Your task to perform on an android device: turn on the 12-hour format for clock Image 0: 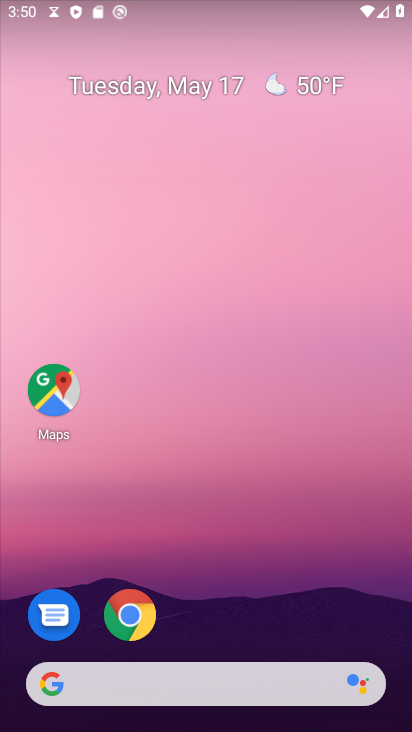
Step 0: drag from (233, 625) to (278, 177)
Your task to perform on an android device: turn on the 12-hour format for clock Image 1: 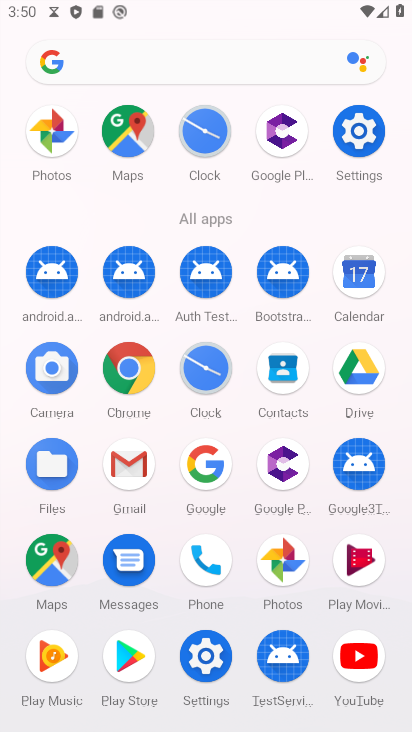
Step 1: click (207, 363)
Your task to perform on an android device: turn on the 12-hour format for clock Image 2: 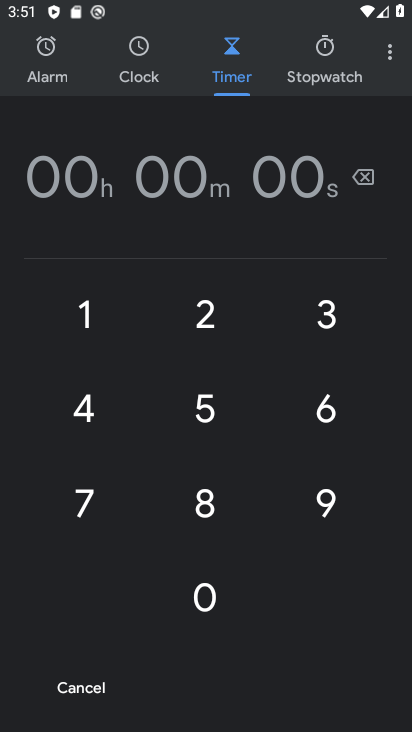
Step 2: click (393, 53)
Your task to perform on an android device: turn on the 12-hour format for clock Image 3: 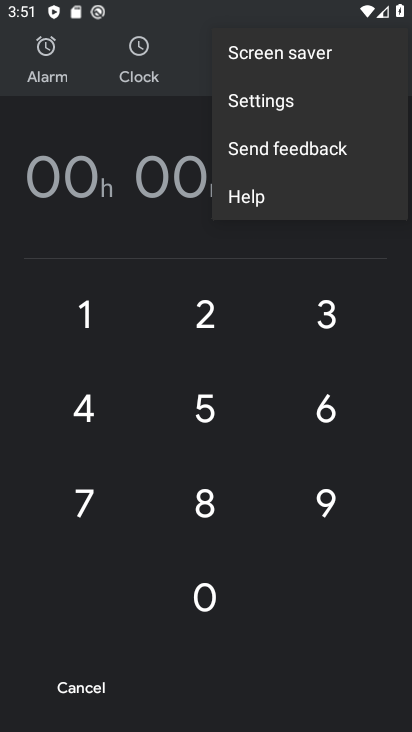
Step 3: click (283, 99)
Your task to perform on an android device: turn on the 12-hour format for clock Image 4: 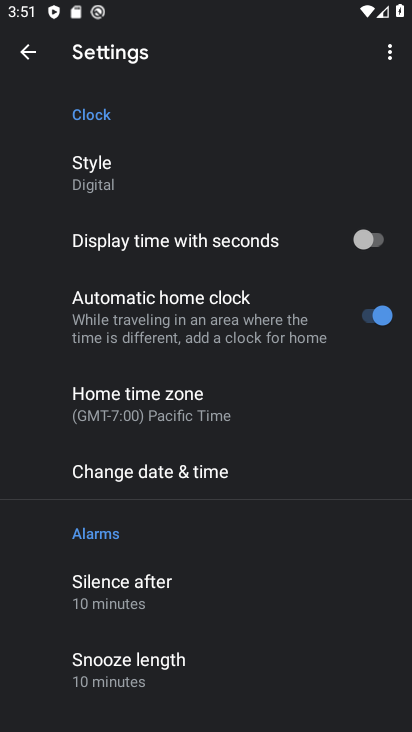
Step 4: click (159, 478)
Your task to perform on an android device: turn on the 12-hour format for clock Image 5: 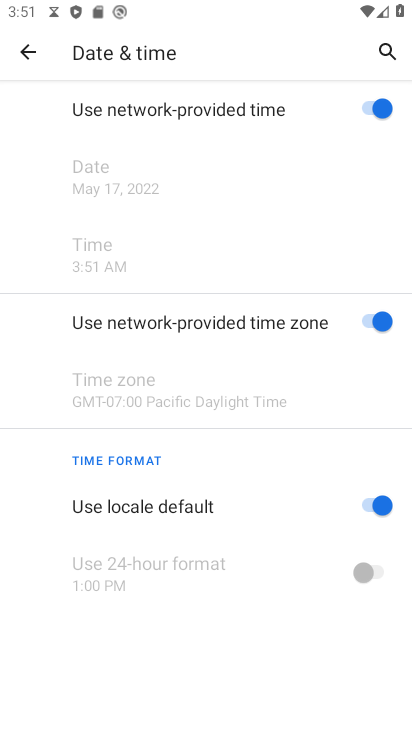
Step 5: task complete